Your task to perform on an android device: Open the calendar app, open the side menu, and click the "Day" option Image 0: 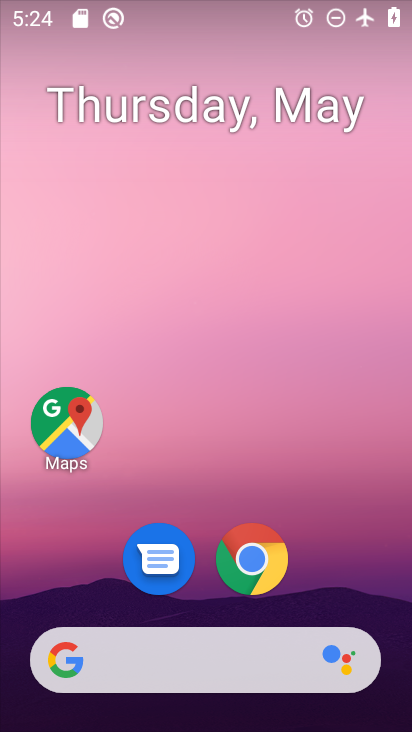
Step 0: drag from (344, 464) to (196, 5)
Your task to perform on an android device: Open the calendar app, open the side menu, and click the "Day" option Image 1: 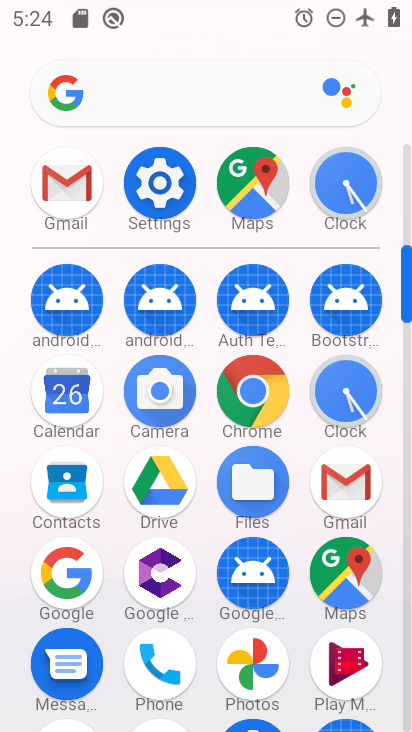
Step 1: click (68, 395)
Your task to perform on an android device: Open the calendar app, open the side menu, and click the "Day" option Image 2: 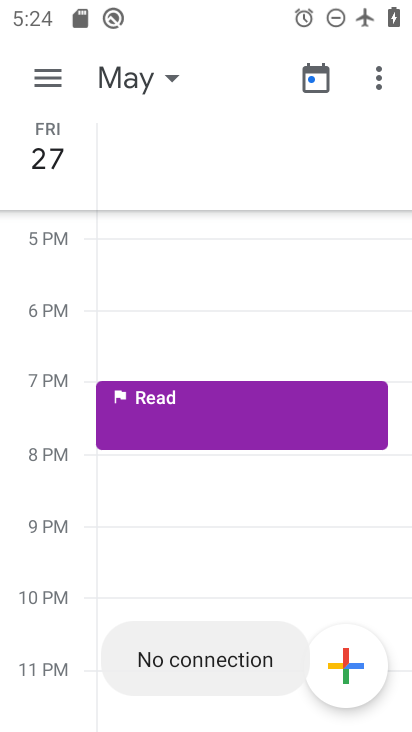
Step 2: click (37, 72)
Your task to perform on an android device: Open the calendar app, open the side menu, and click the "Day" option Image 3: 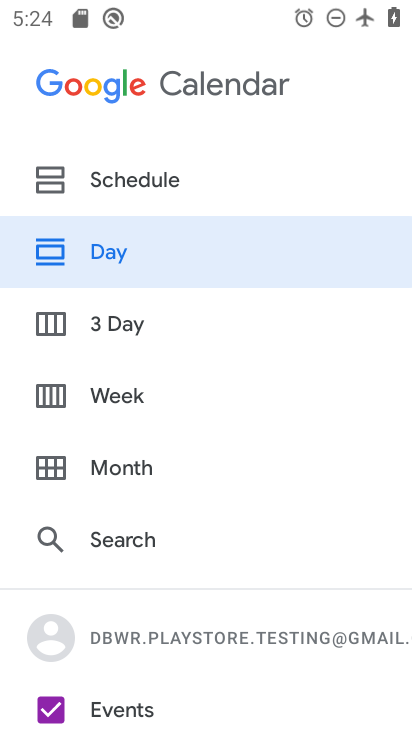
Step 3: click (147, 263)
Your task to perform on an android device: Open the calendar app, open the side menu, and click the "Day" option Image 4: 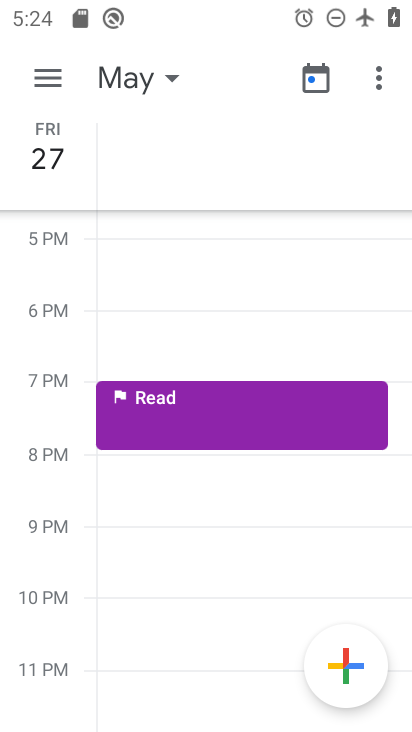
Step 4: task complete